Your task to perform on an android device: Open maps Image 0: 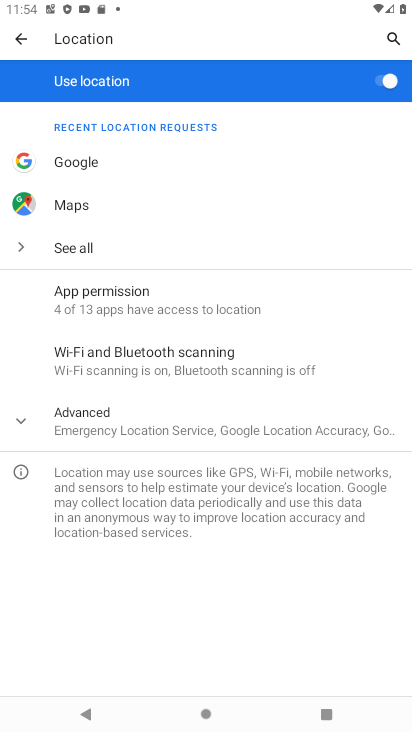
Step 0: press home button
Your task to perform on an android device: Open maps Image 1: 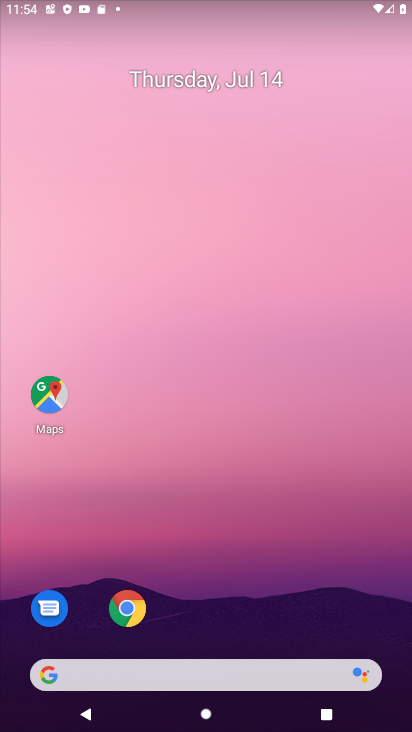
Step 1: drag from (171, 657) to (210, 145)
Your task to perform on an android device: Open maps Image 2: 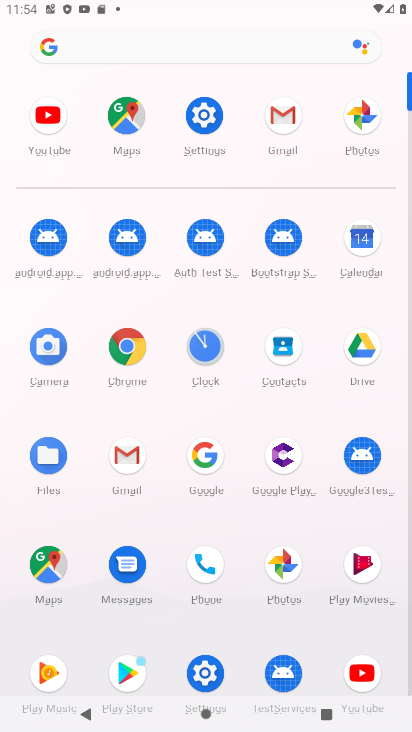
Step 2: click (49, 571)
Your task to perform on an android device: Open maps Image 3: 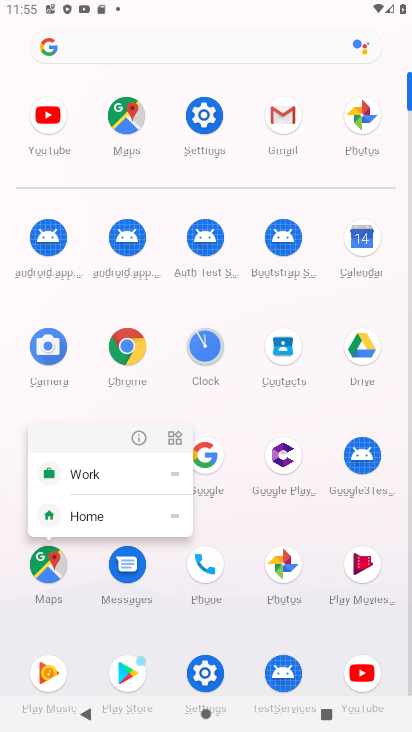
Step 3: click (48, 557)
Your task to perform on an android device: Open maps Image 4: 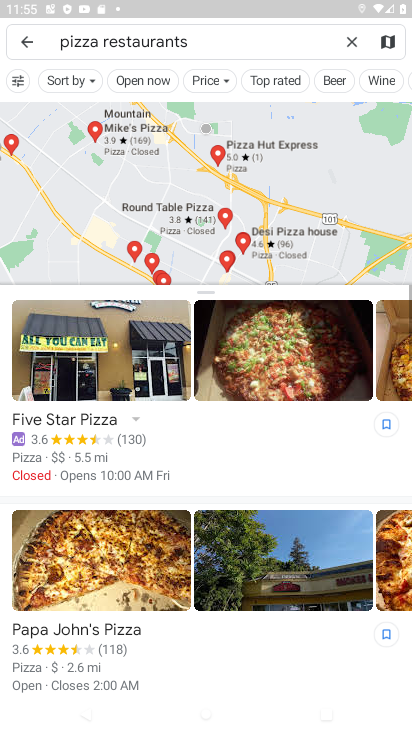
Step 4: task complete